Your task to perform on an android device: Open CNN.com Image 0: 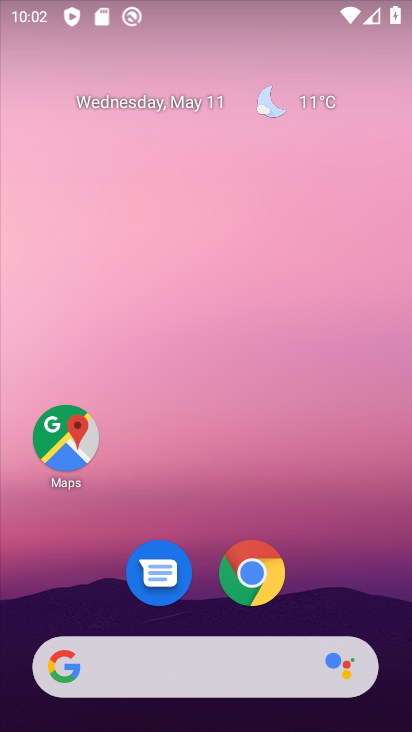
Step 0: drag from (218, 560) to (235, 185)
Your task to perform on an android device: Open CNN.com Image 1: 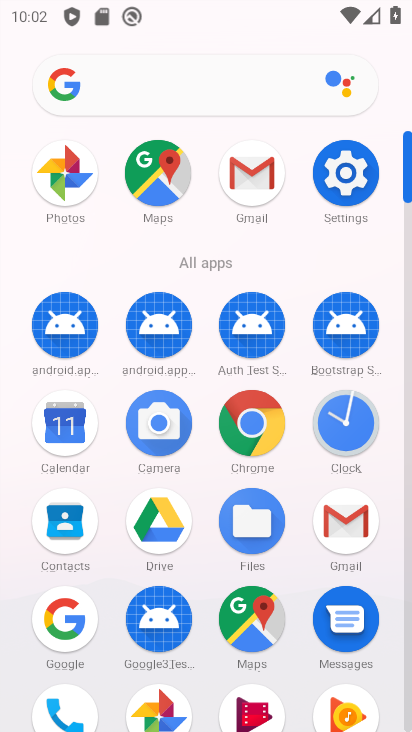
Step 1: click (246, 417)
Your task to perform on an android device: Open CNN.com Image 2: 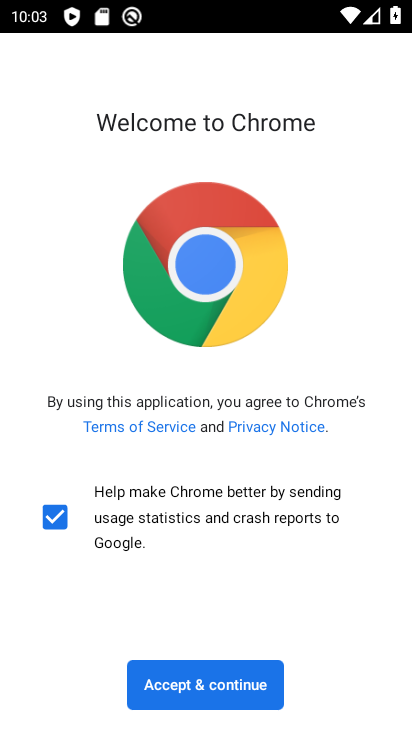
Step 2: click (160, 689)
Your task to perform on an android device: Open CNN.com Image 3: 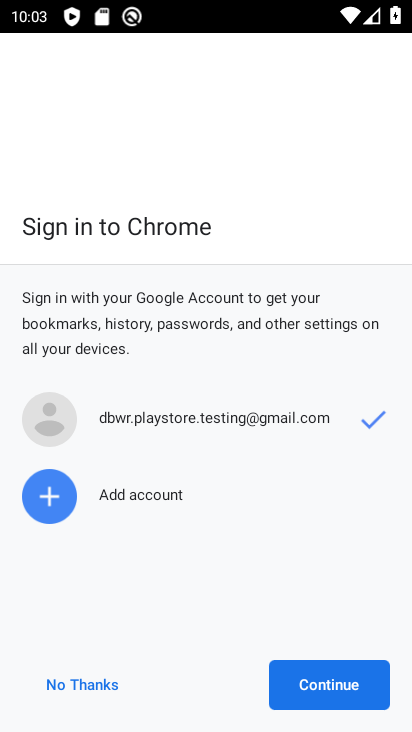
Step 3: click (288, 678)
Your task to perform on an android device: Open CNN.com Image 4: 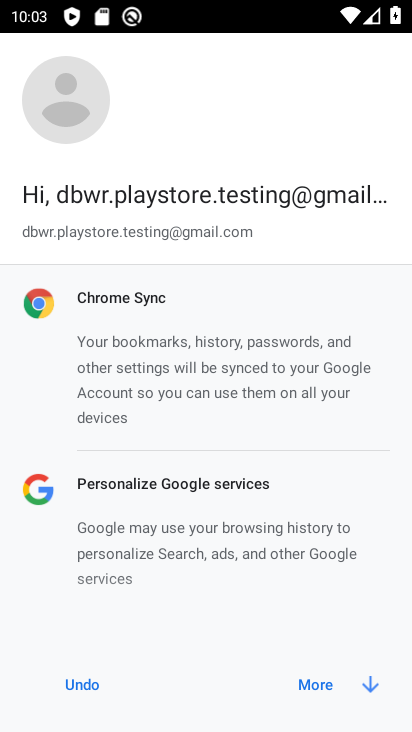
Step 4: click (288, 678)
Your task to perform on an android device: Open CNN.com Image 5: 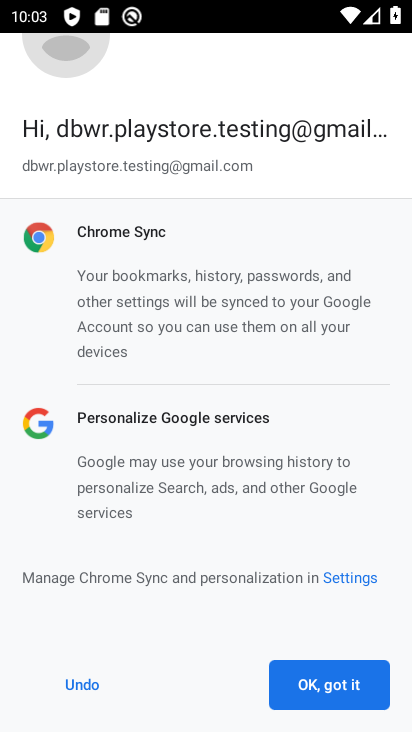
Step 5: click (288, 678)
Your task to perform on an android device: Open CNN.com Image 6: 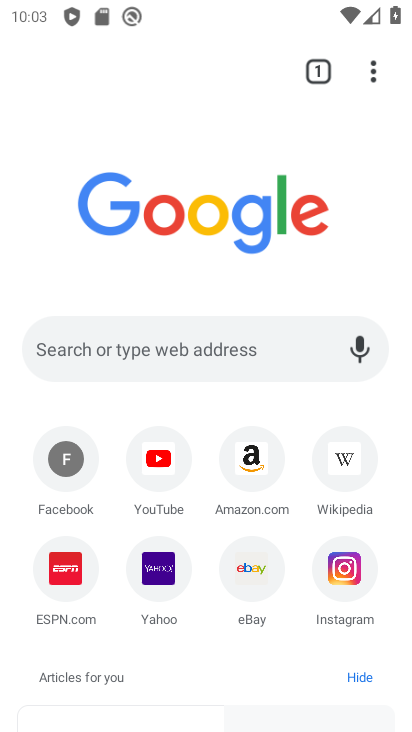
Step 6: click (97, 345)
Your task to perform on an android device: Open CNN.com Image 7: 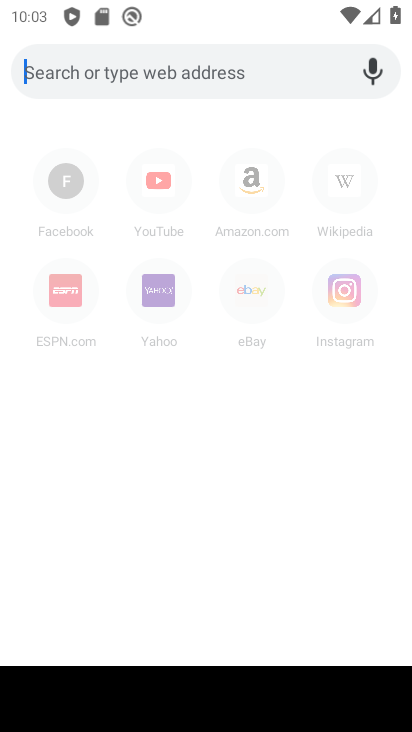
Step 7: type "cnn"
Your task to perform on an android device: Open CNN.com Image 8: 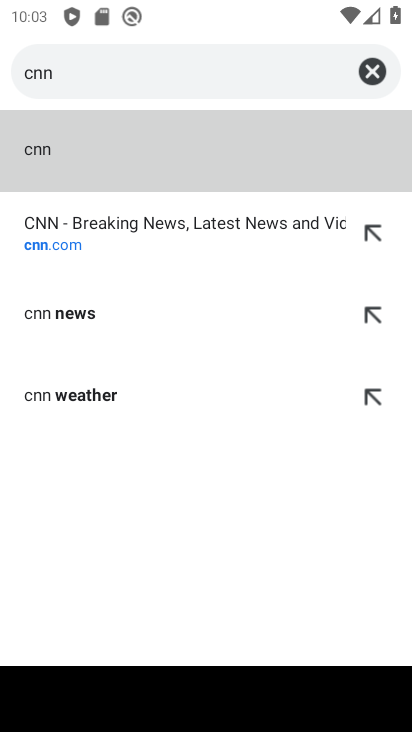
Step 8: click (81, 161)
Your task to perform on an android device: Open CNN.com Image 9: 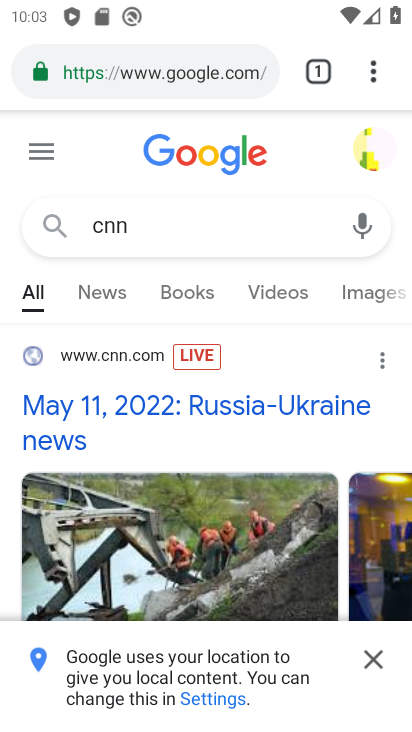
Step 9: drag from (124, 471) to (199, 52)
Your task to perform on an android device: Open CNN.com Image 10: 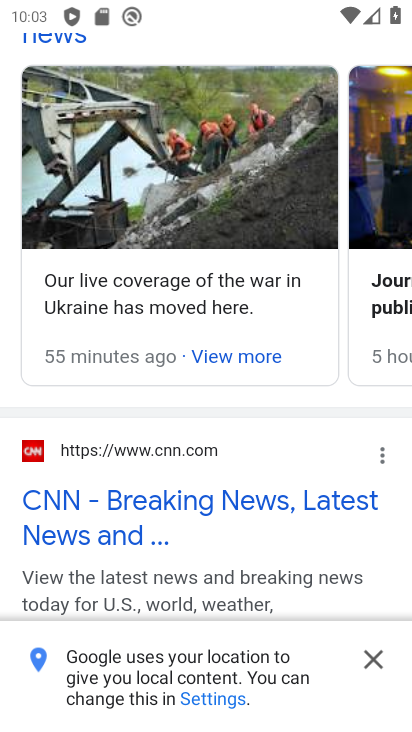
Step 10: click (109, 533)
Your task to perform on an android device: Open CNN.com Image 11: 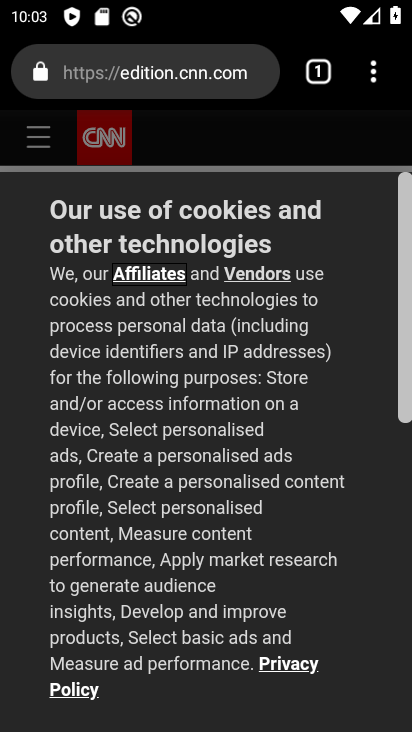
Step 11: task complete